Your task to perform on an android device: change keyboard looks Image 0: 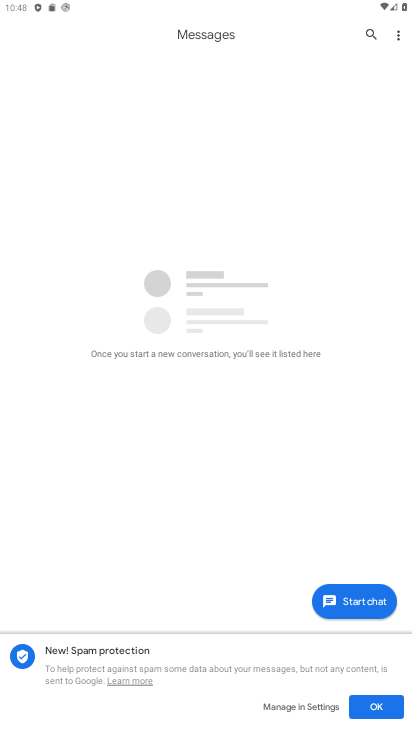
Step 0: press home button
Your task to perform on an android device: change keyboard looks Image 1: 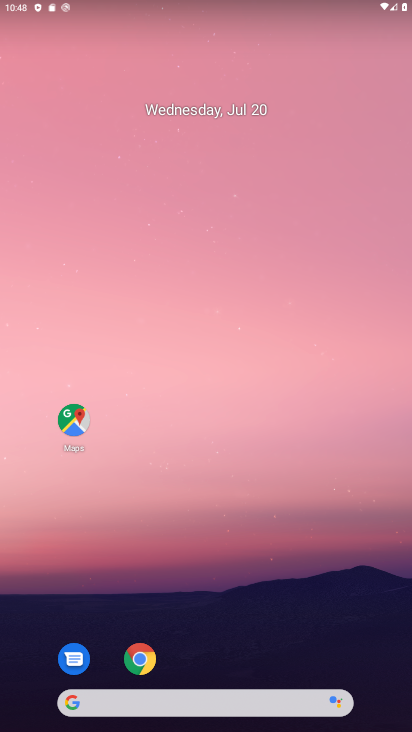
Step 1: drag from (221, 677) to (232, 1)
Your task to perform on an android device: change keyboard looks Image 2: 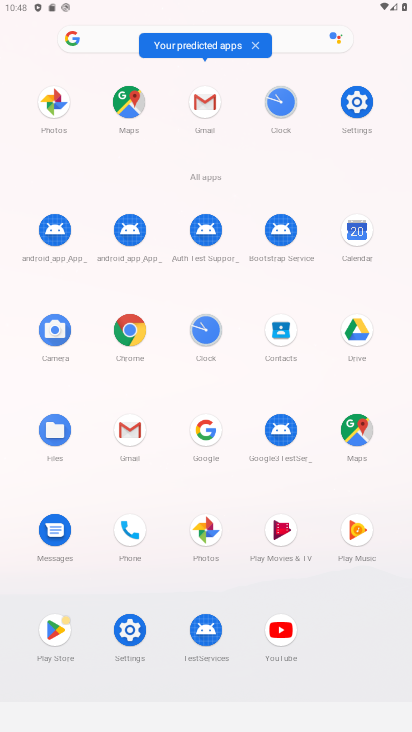
Step 2: click (134, 648)
Your task to perform on an android device: change keyboard looks Image 3: 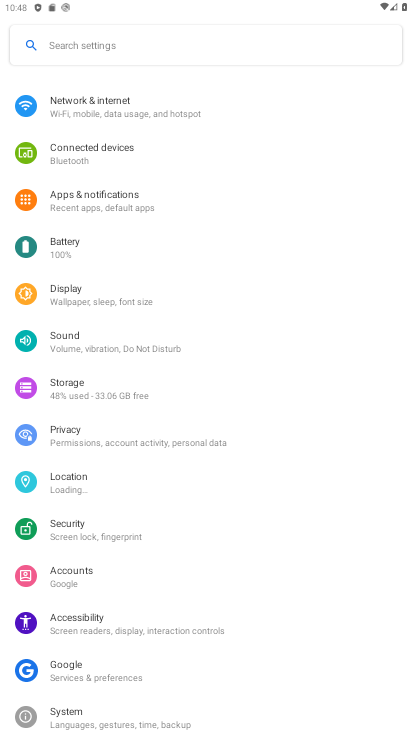
Step 3: drag from (195, 315) to (209, 195)
Your task to perform on an android device: change keyboard looks Image 4: 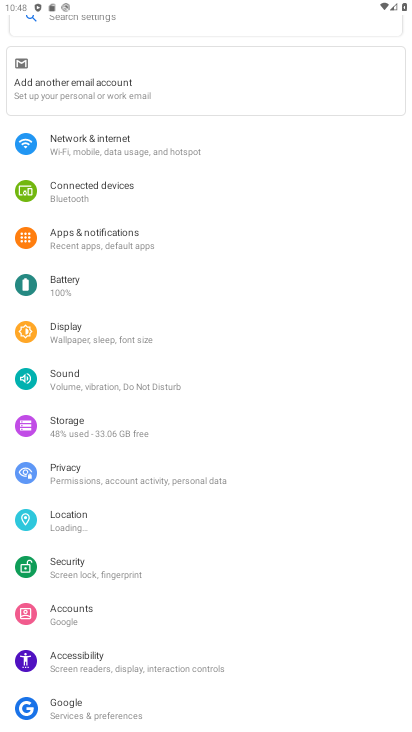
Step 4: drag from (131, 668) to (167, 379)
Your task to perform on an android device: change keyboard looks Image 5: 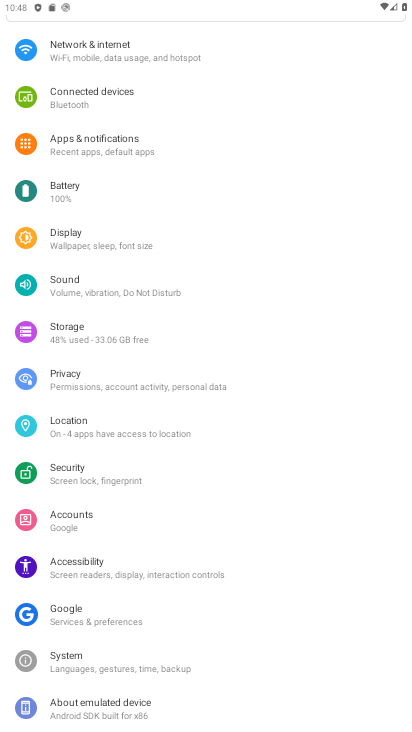
Step 5: click (100, 671)
Your task to perform on an android device: change keyboard looks Image 6: 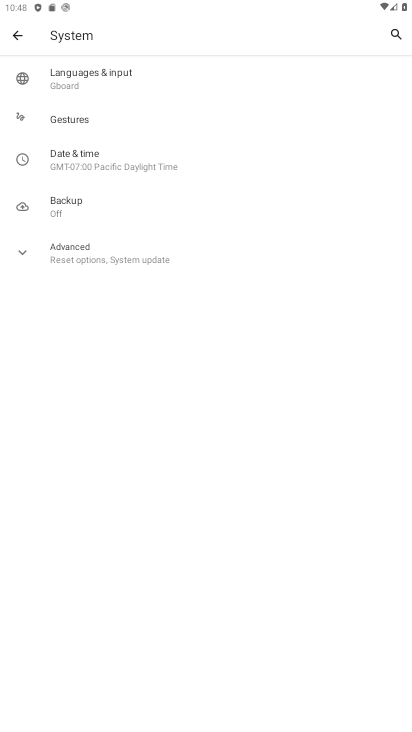
Step 6: click (103, 76)
Your task to perform on an android device: change keyboard looks Image 7: 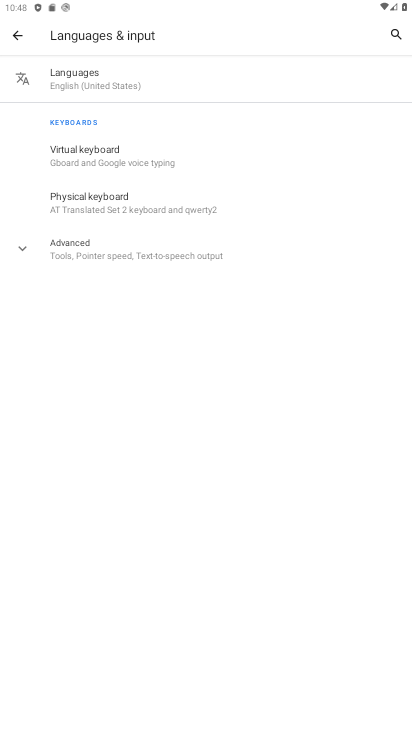
Step 7: click (109, 164)
Your task to perform on an android device: change keyboard looks Image 8: 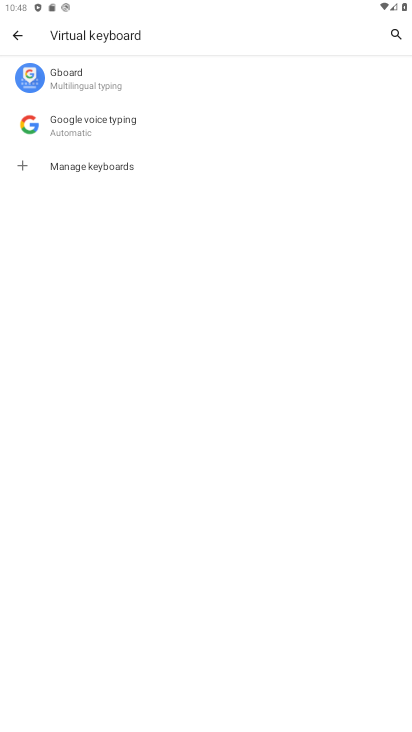
Step 8: click (90, 75)
Your task to perform on an android device: change keyboard looks Image 9: 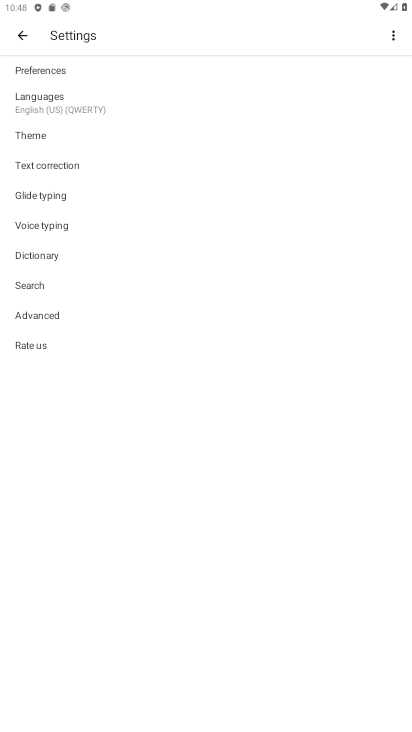
Step 9: click (63, 135)
Your task to perform on an android device: change keyboard looks Image 10: 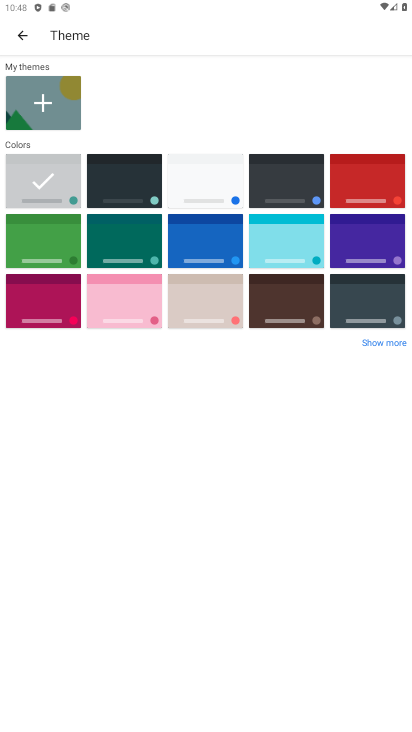
Step 10: click (137, 247)
Your task to perform on an android device: change keyboard looks Image 11: 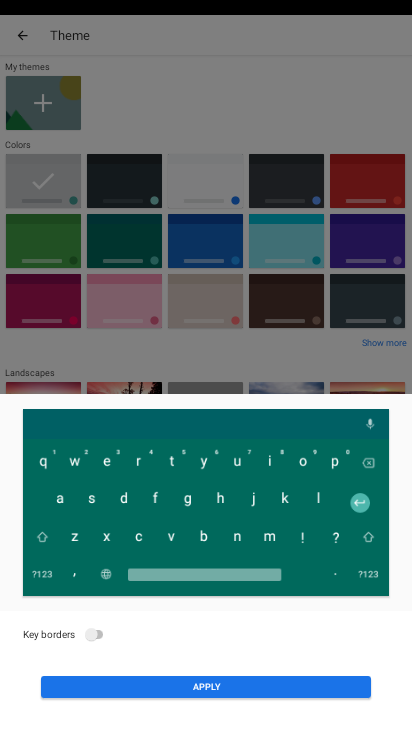
Step 11: click (207, 689)
Your task to perform on an android device: change keyboard looks Image 12: 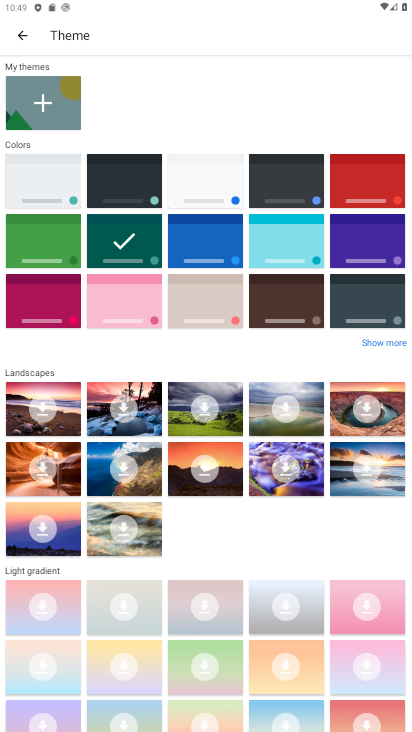
Step 12: task complete